Your task to perform on an android device: Go to privacy settings Image 0: 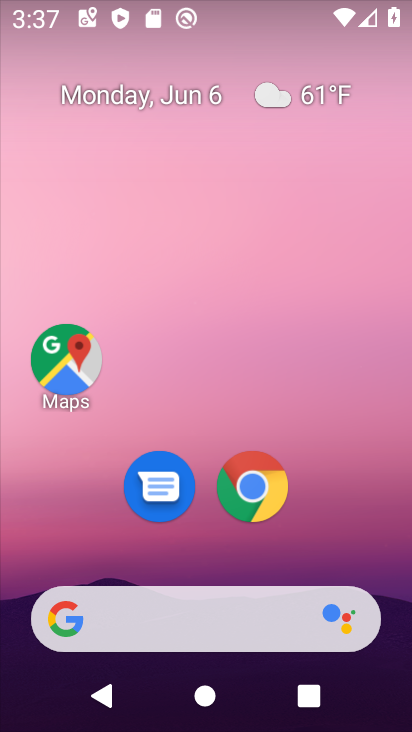
Step 0: drag from (328, 436) to (255, 45)
Your task to perform on an android device: Go to privacy settings Image 1: 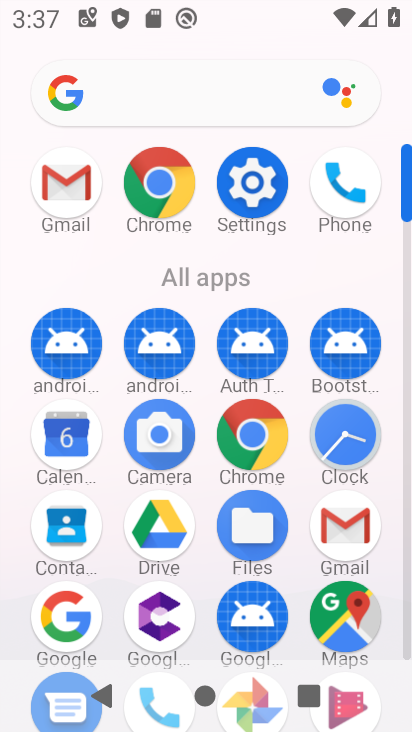
Step 1: click (248, 167)
Your task to perform on an android device: Go to privacy settings Image 2: 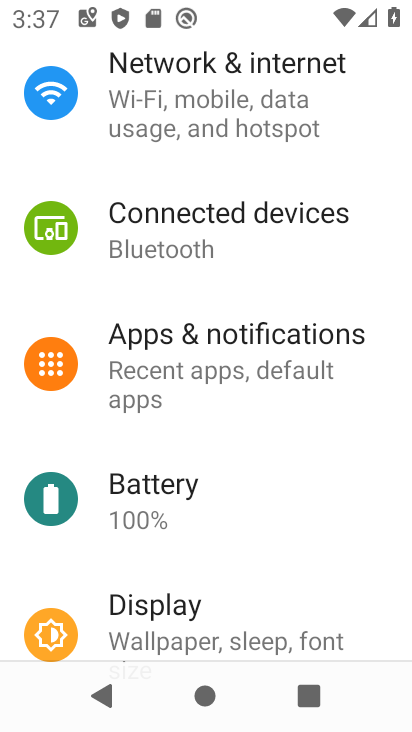
Step 2: drag from (241, 545) to (262, 149)
Your task to perform on an android device: Go to privacy settings Image 3: 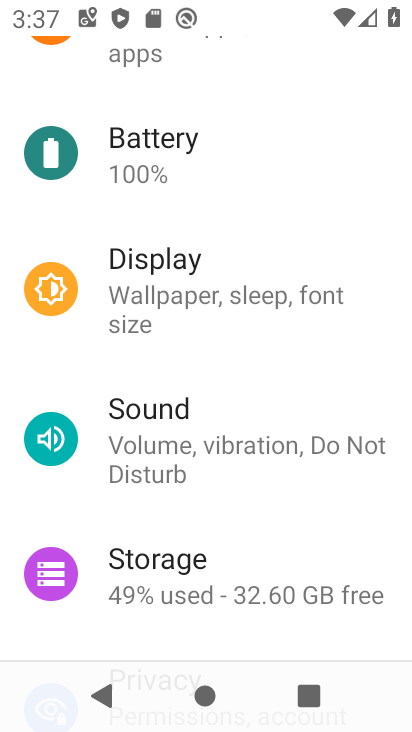
Step 3: drag from (251, 517) to (283, 89)
Your task to perform on an android device: Go to privacy settings Image 4: 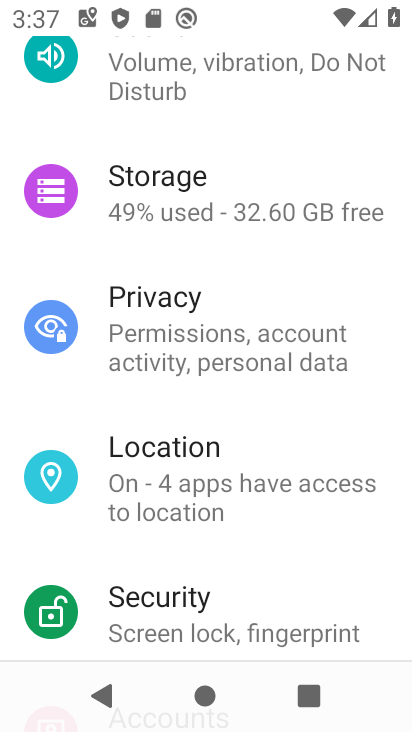
Step 4: click (215, 342)
Your task to perform on an android device: Go to privacy settings Image 5: 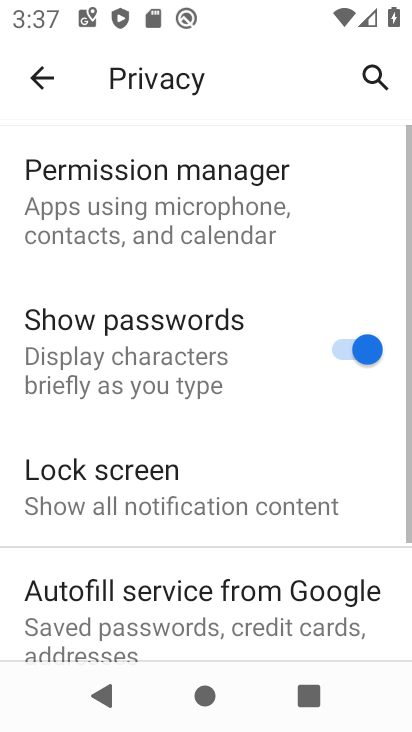
Step 5: task complete